Your task to perform on an android device: Empty the shopping cart on costco. Search for "amazon basics triple a" on costco, select the first entry, add it to the cart, then select checkout. Image 0: 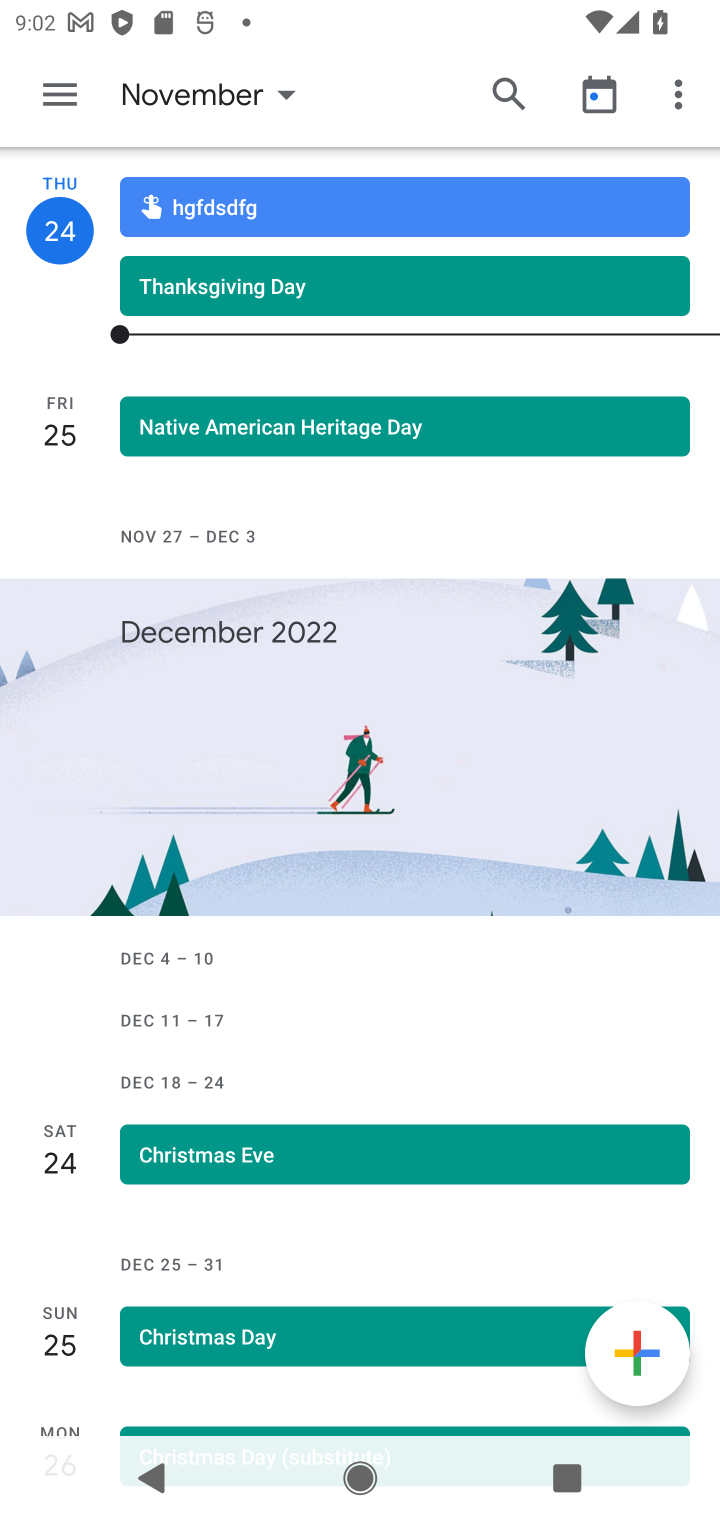
Step 0: task complete